Your task to perform on an android device: Open my contact list Image 0: 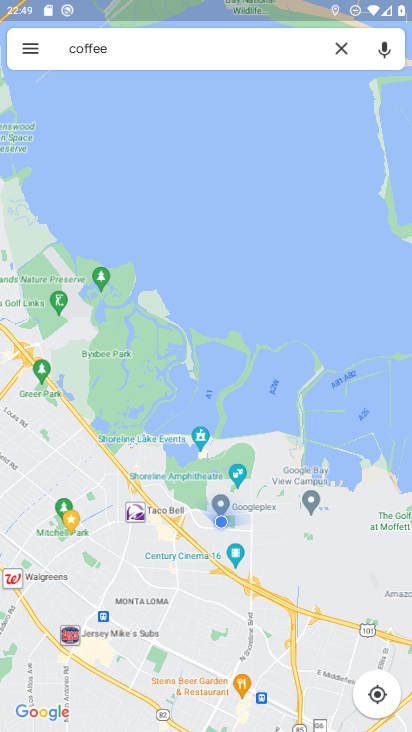
Step 0: press home button
Your task to perform on an android device: Open my contact list Image 1: 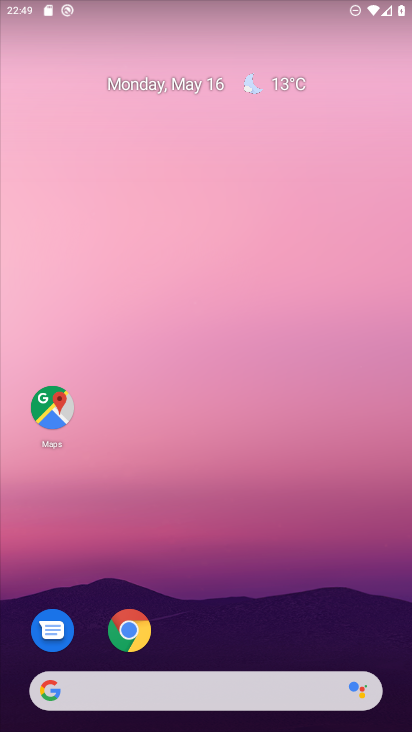
Step 1: drag from (224, 597) to (387, 440)
Your task to perform on an android device: Open my contact list Image 2: 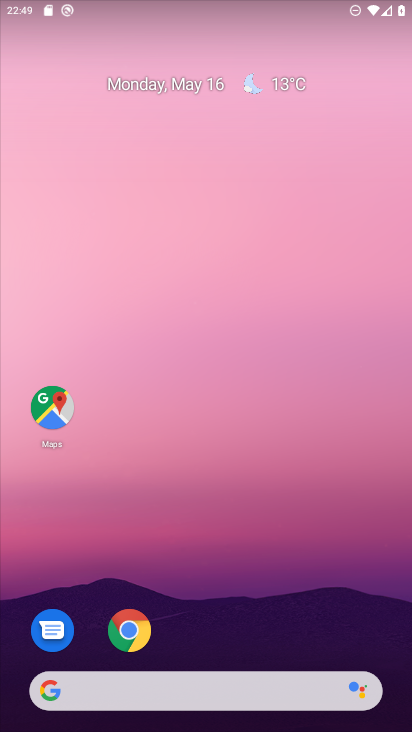
Step 2: drag from (209, 573) to (269, 41)
Your task to perform on an android device: Open my contact list Image 3: 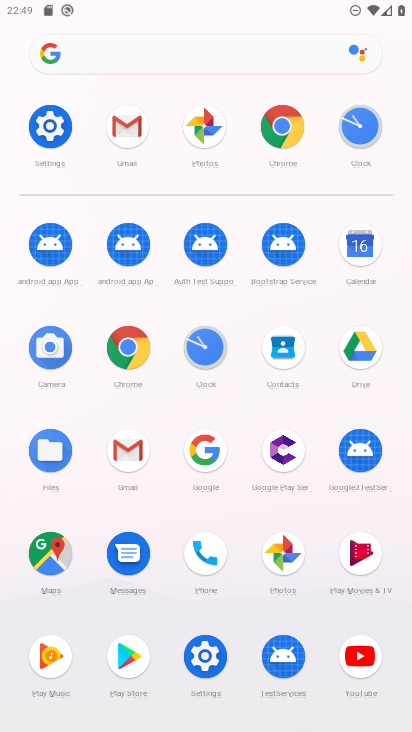
Step 3: click (284, 364)
Your task to perform on an android device: Open my contact list Image 4: 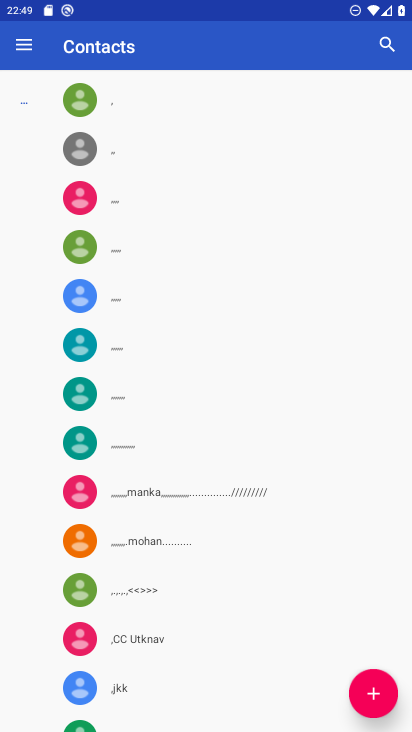
Step 4: task complete